Your task to perform on an android device: Clear all items from cart on amazon. Image 0: 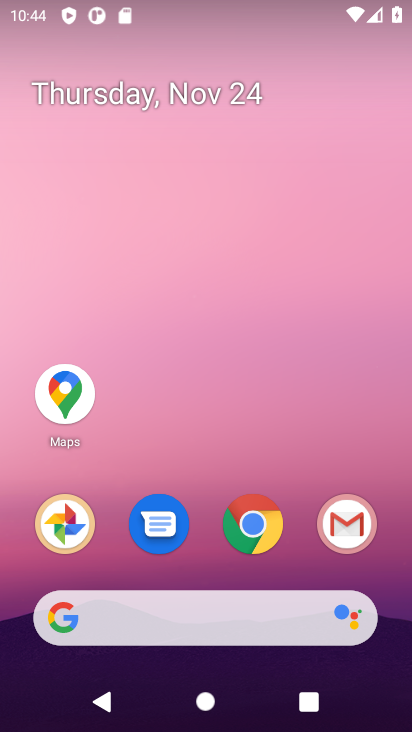
Step 0: click (258, 529)
Your task to perform on an android device: Clear all items from cart on amazon. Image 1: 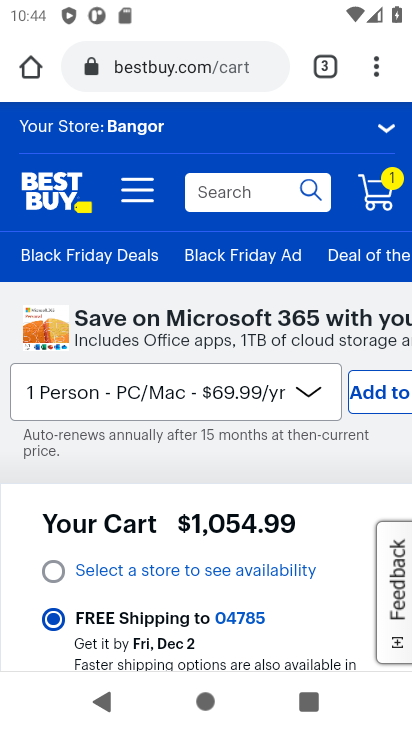
Step 1: click (179, 66)
Your task to perform on an android device: Clear all items from cart on amazon. Image 2: 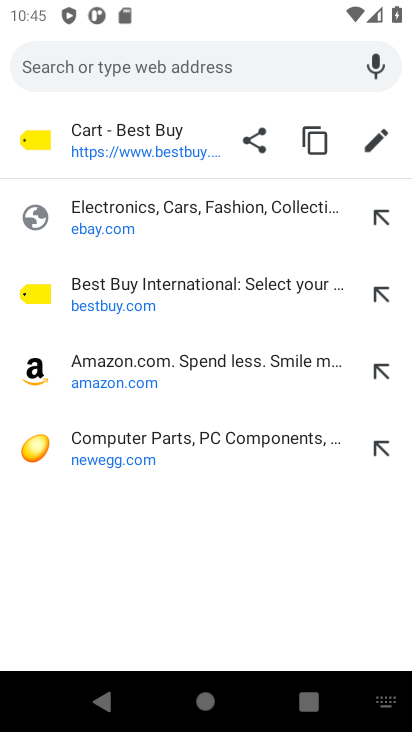
Step 2: click (89, 371)
Your task to perform on an android device: Clear all items from cart on amazon. Image 3: 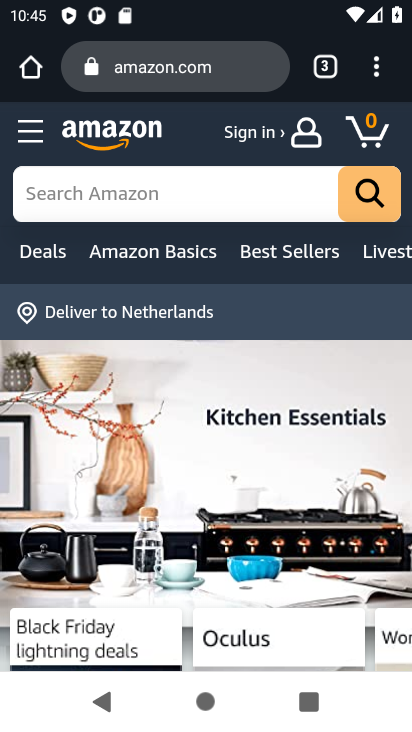
Step 3: click (371, 123)
Your task to perform on an android device: Clear all items from cart on amazon. Image 4: 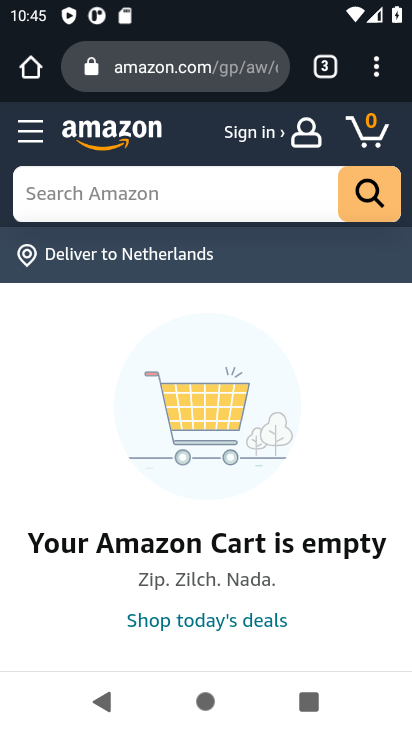
Step 4: task complete